Your task to perform on an android device: Clear all items from cart on newegg.com. Image 0: 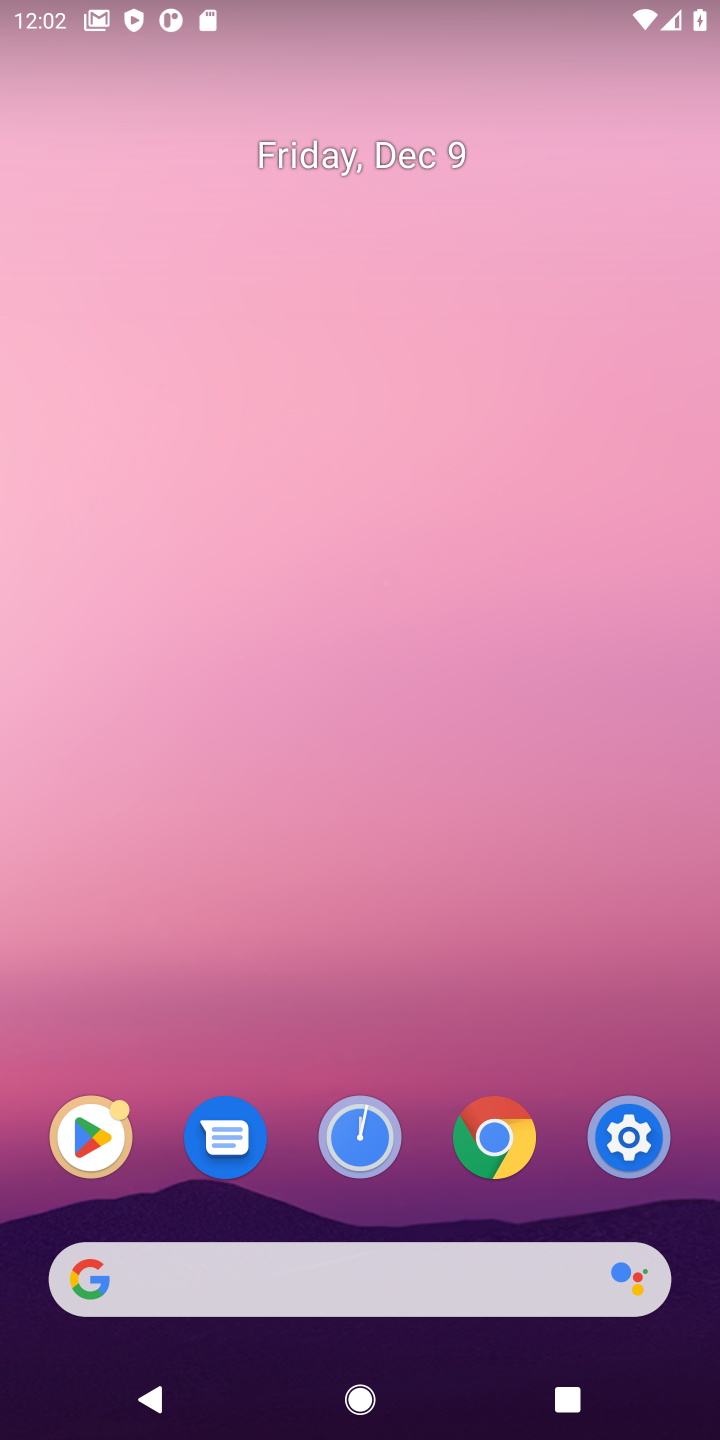
Step 0: click (277, 1299)
Your task to perform on an android device: Clear all items from cart on newegg.com. Image 1: 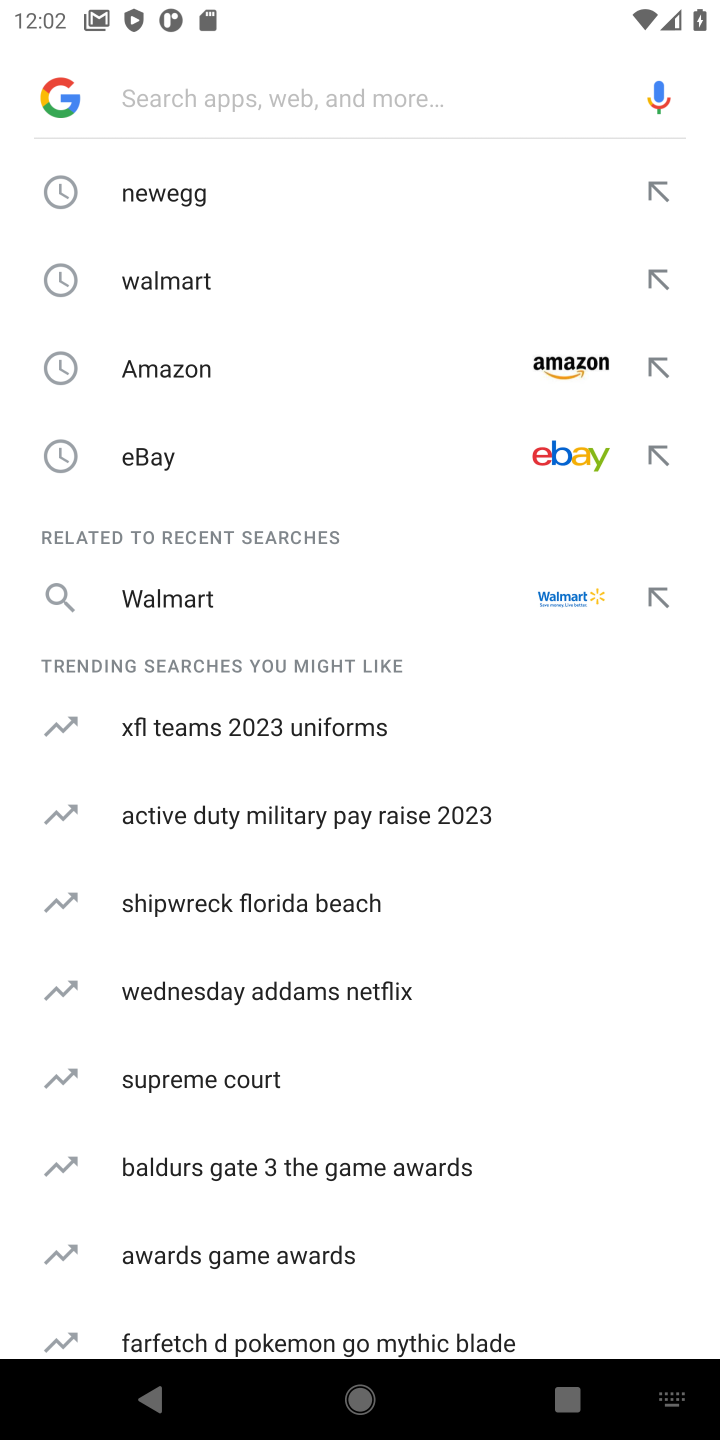
Step 1: click (173, 186)
Your task to perform on an android device: Clear all items from cart on newegg.com. Image 2: 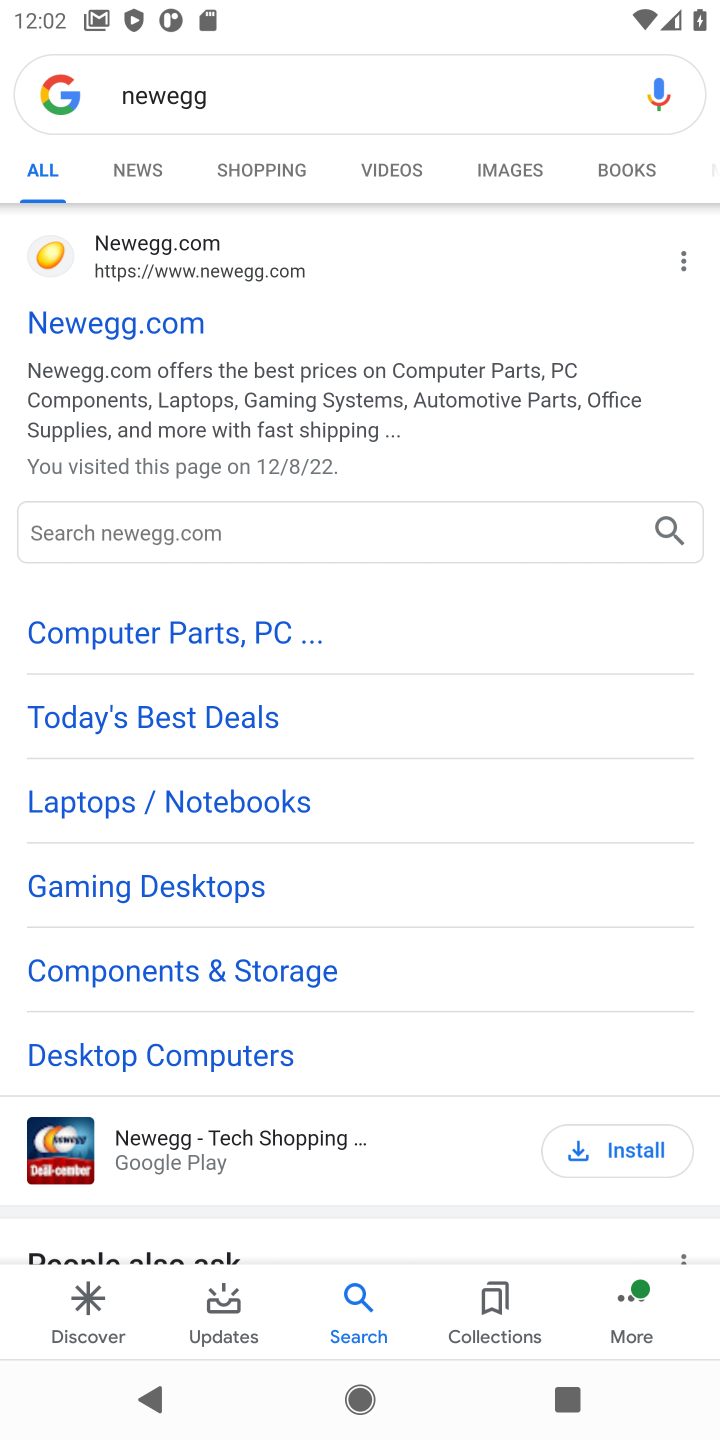
Step 2: click (36, 319)
Your task to perform on an android device: Clear all items from cart on newegg.com. Image 3: 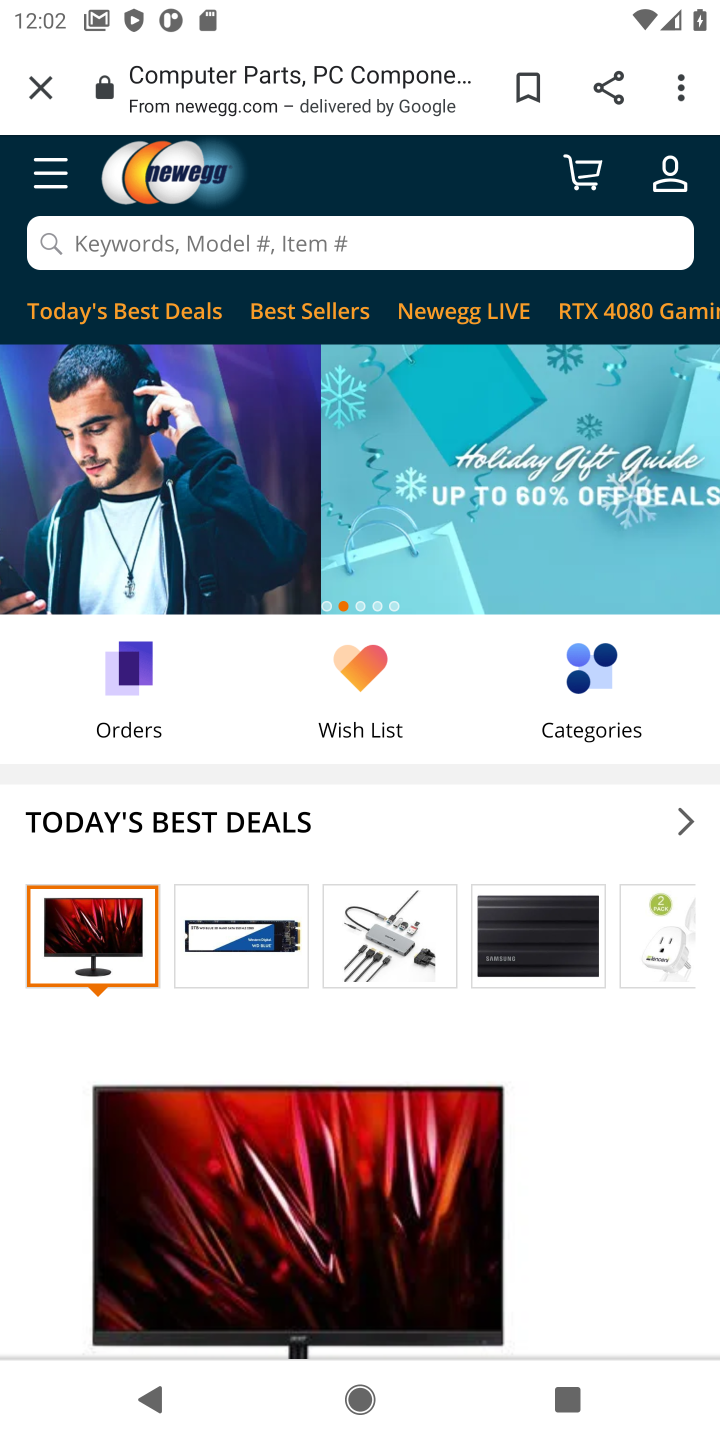
Step 3: click (179, 247)
Your task to perform on an android device: Clear all items from cart on newegg.com. Image 4: 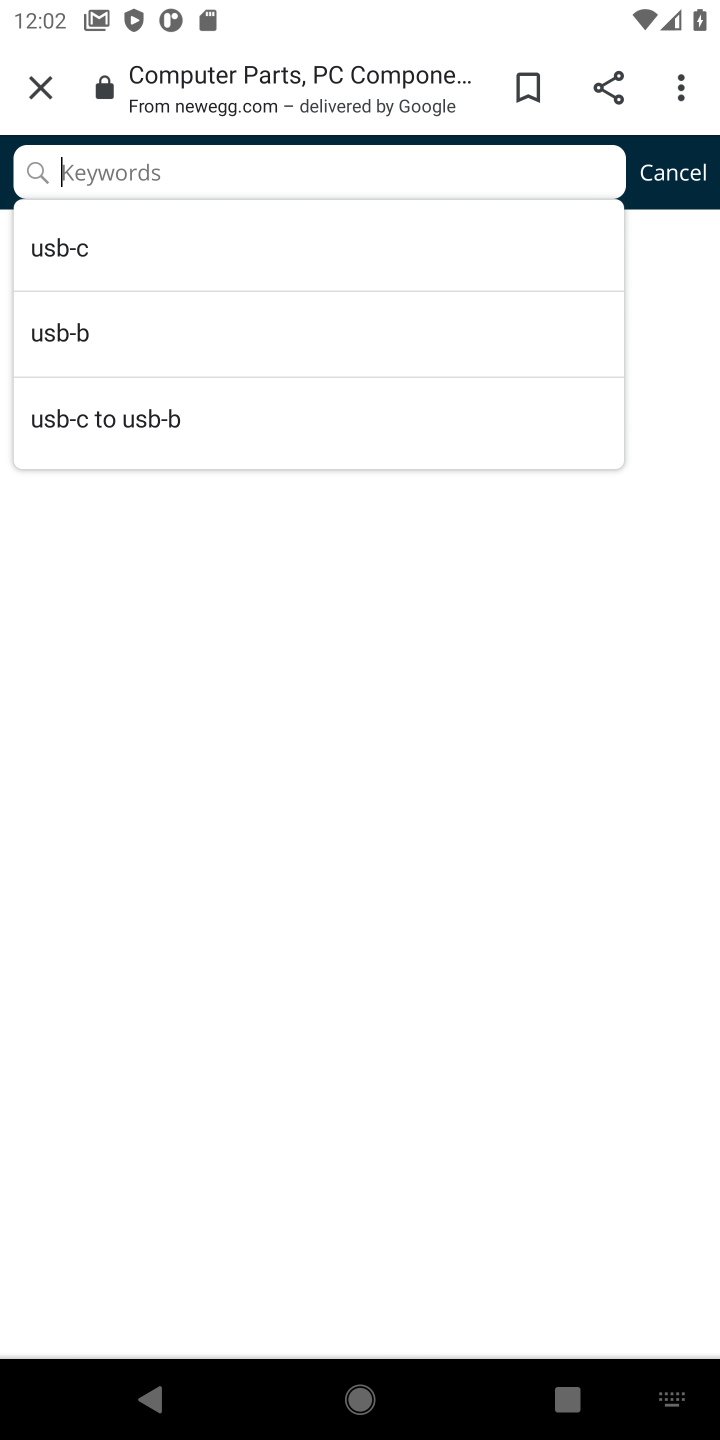
Step 4: click (597, 170)
Your task to perform on an android device: Clear all items from cart on newegg.com. Image 5: 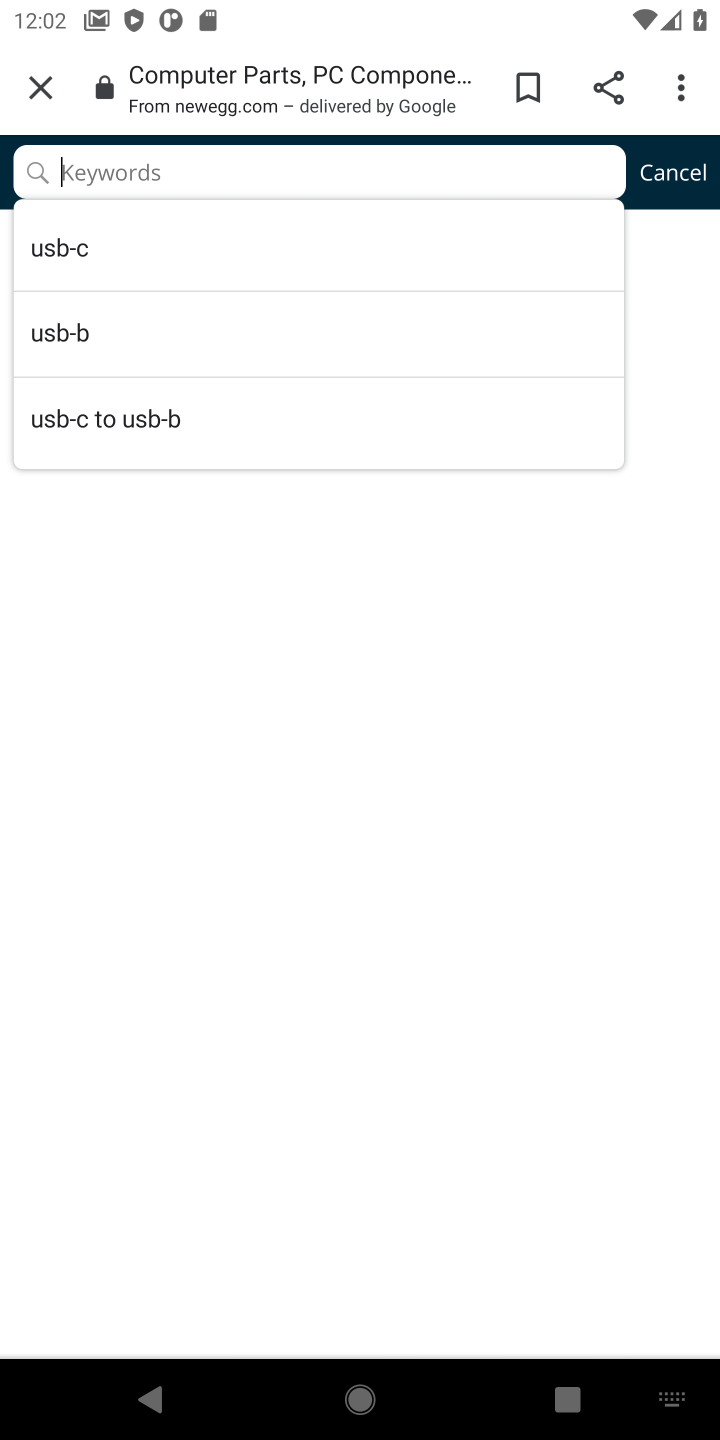
Step 5: click (678, 182)
Your task to perform on an android device: Clear all items from cart on newegg.com. Image 6: 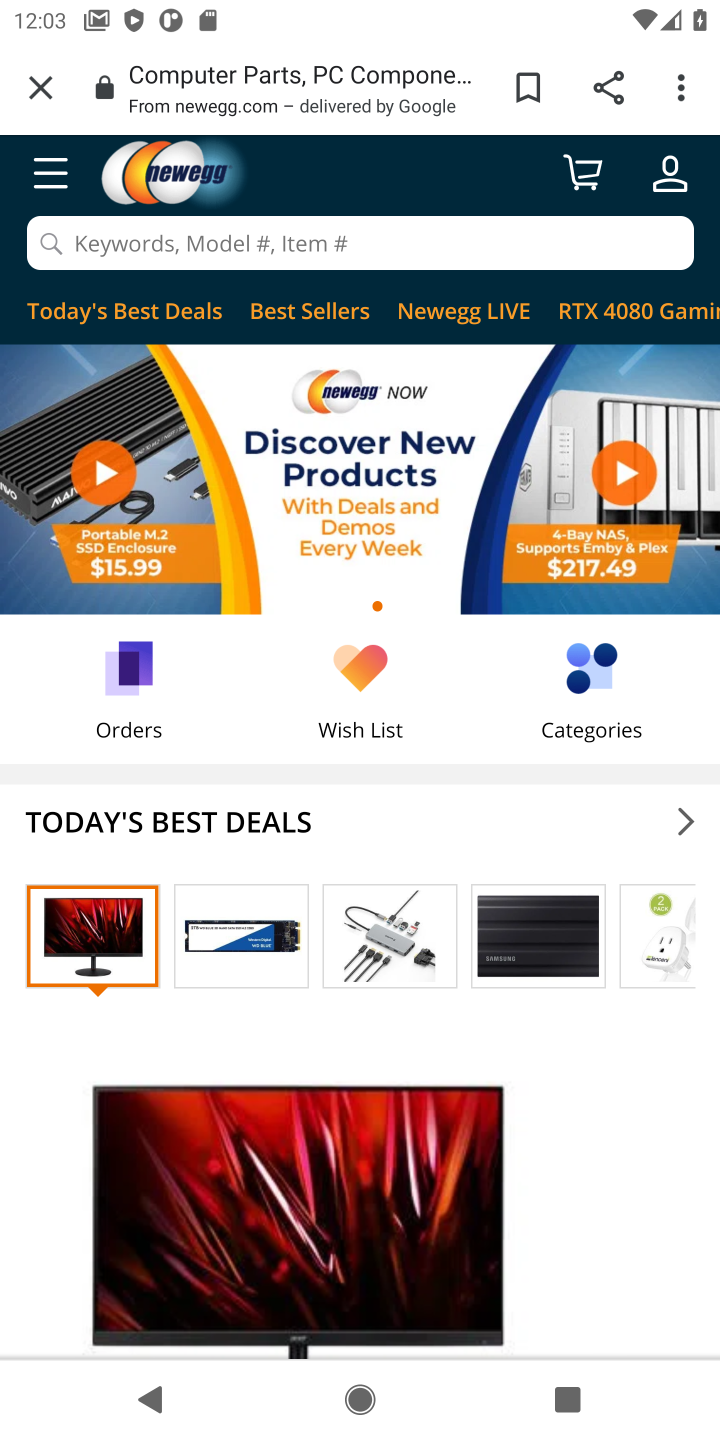
Step 6: click (189, 232)
Your task to perform on an android device: Clear all items from cart on newegg.com. Image 7: 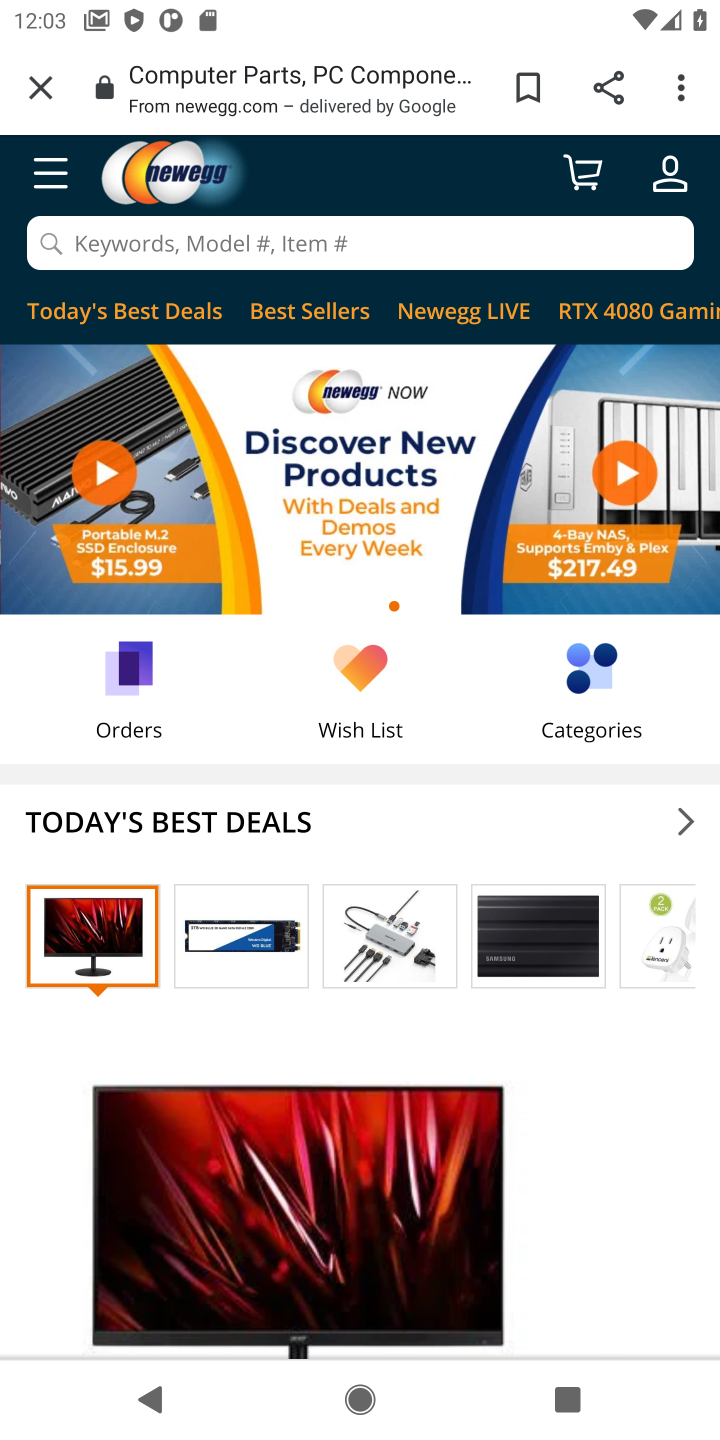
Step 7: click (565, 193)
Your task to perform on an android device: Clear all items from cart on newegg.com. Image 8: 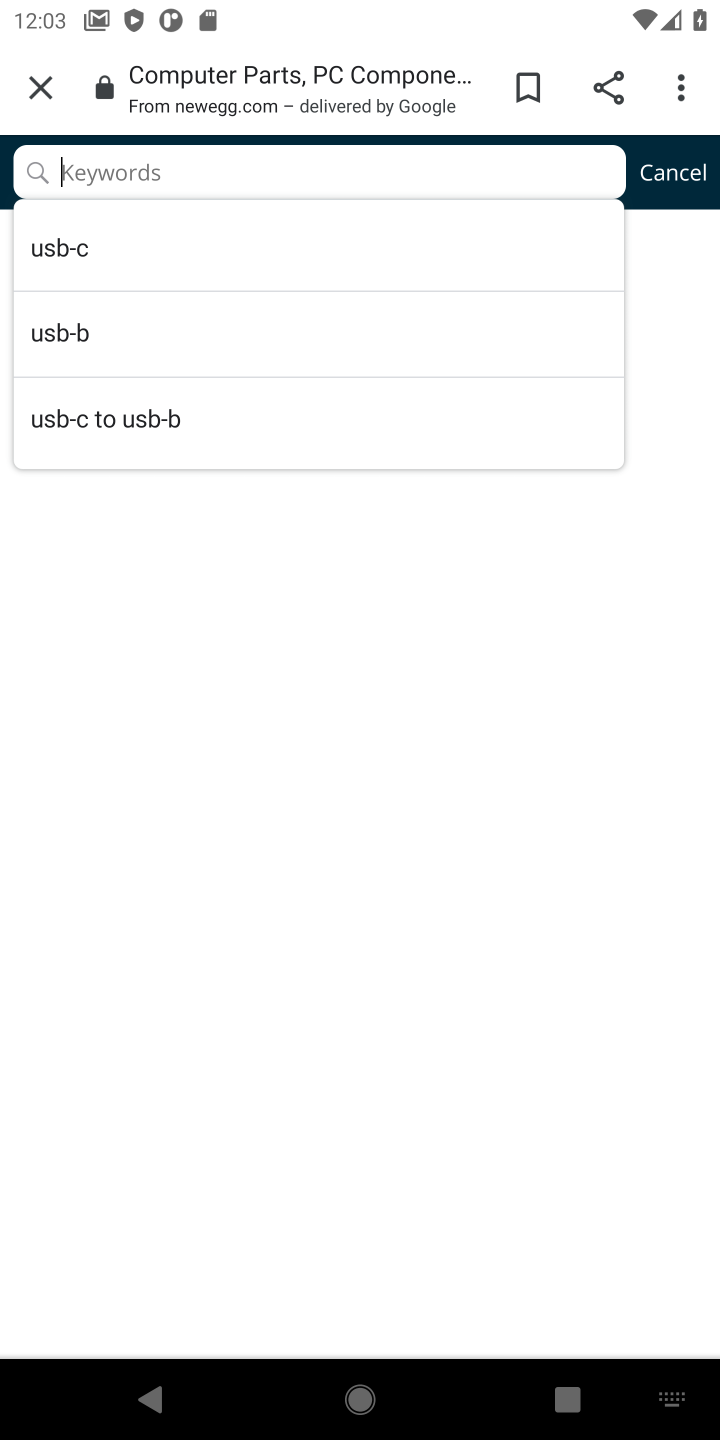
Step 8: task complete